Your task to perform on an android device: Go to Amazon Image 0: 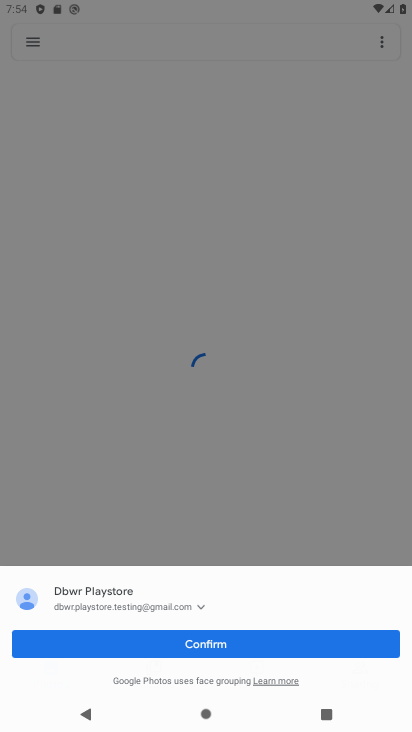
Step 0: press home button
Your task to perform on an android device: Go to Amazon Image 1: 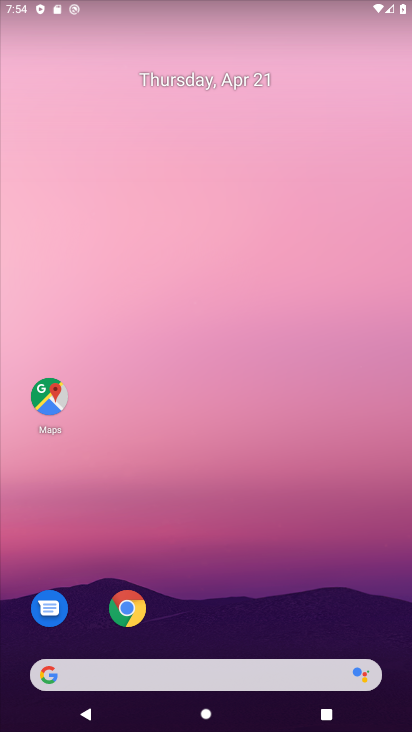
Step 1: click (132, 613)
Your task to perform on an android device: Go to Amazon Image 2: 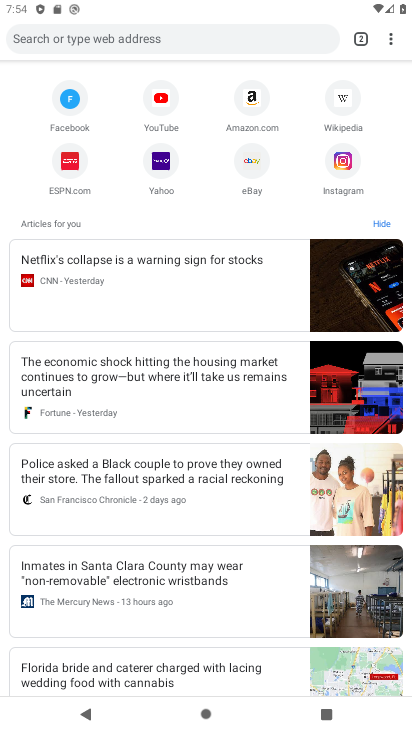
Step 2: click (243, 98)
Your task to perform on an android device: Go to Amazon Image 3: 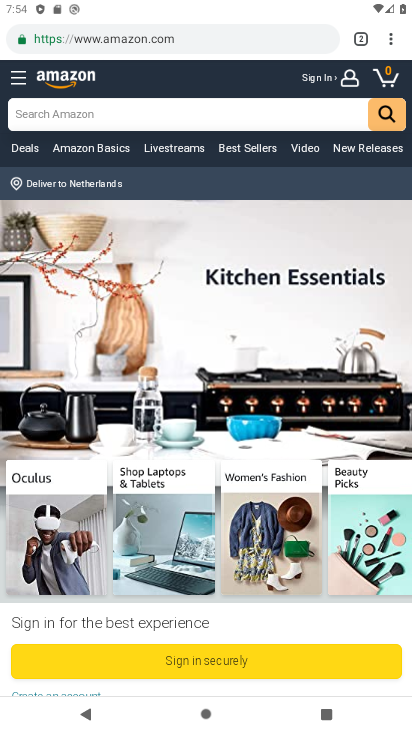
Step 3: task complete